Your task to perform on an android device: Open maps Image 0: 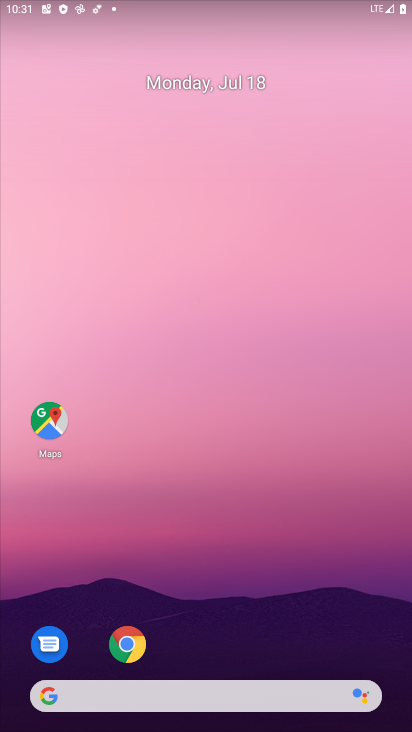
Step 0: drag from (328, 619) to (350, 157)
Your task to perform on an android device: Open maps Image 1: 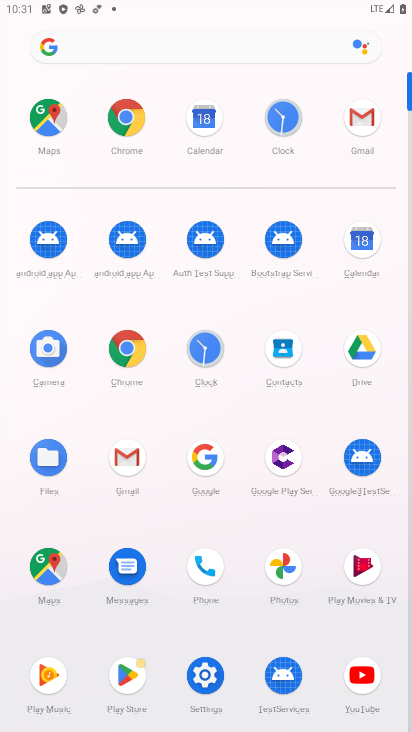
Step 1: click (43, 576)
Your task to perform on an android device: Open maps Image 2: 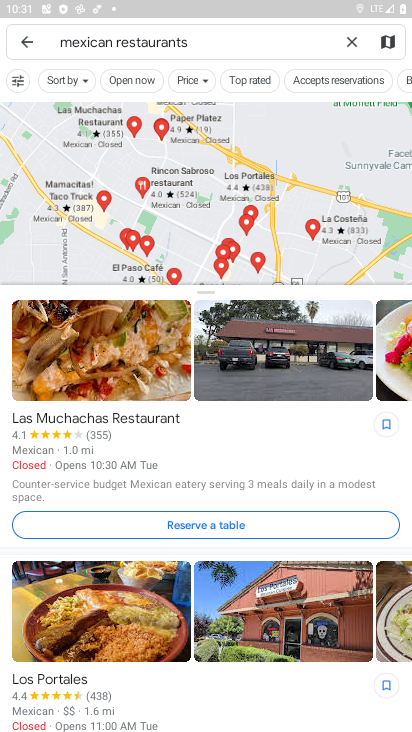
Step 2: task complete